Your task to perform on an android device: see sites visited before in the chrome app Image 0: 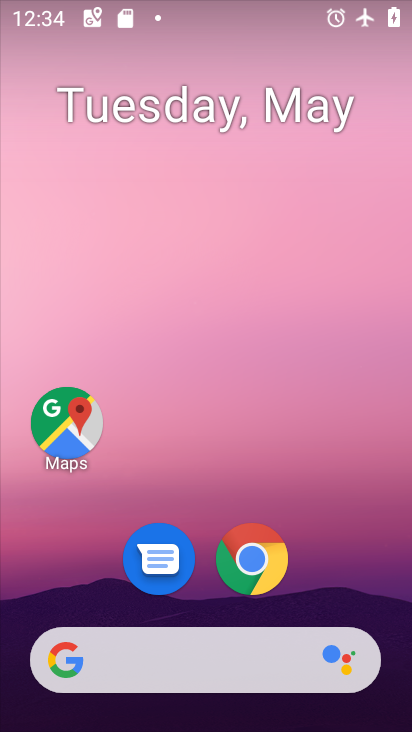
Step 0: drag from (369, 577) to (259, 140)
Your task to perform on an android device: see sites visited before in the chrome app Image 1: 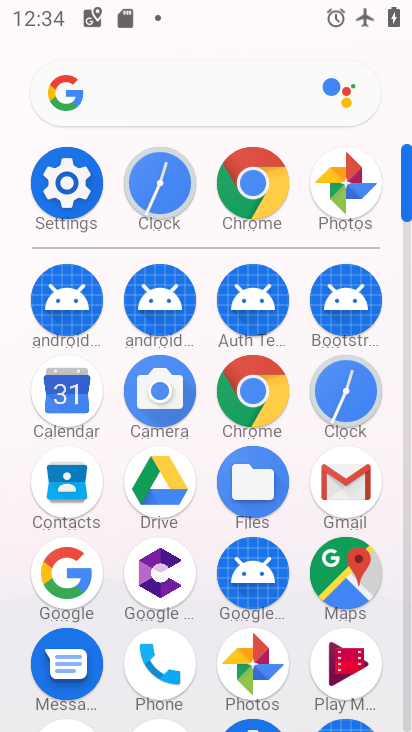
Step 1: click (260, 192)
Your task to perform on an android device: see sites visited before in the chrome app Image 2: 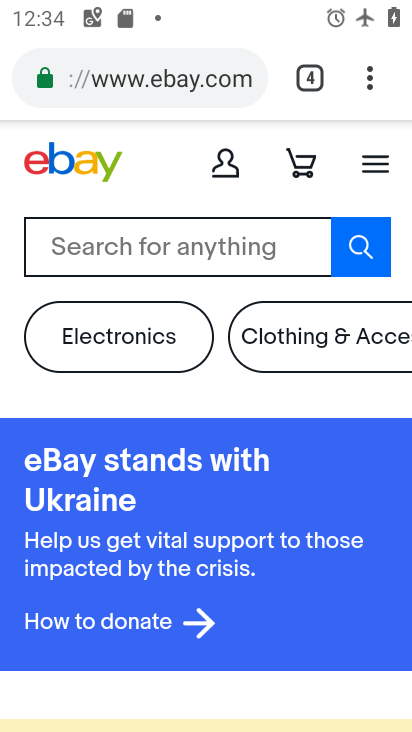
Step 2: click (369, 88)
Your task to perform on an android device: see sites visited before in the chrome app Image 3: 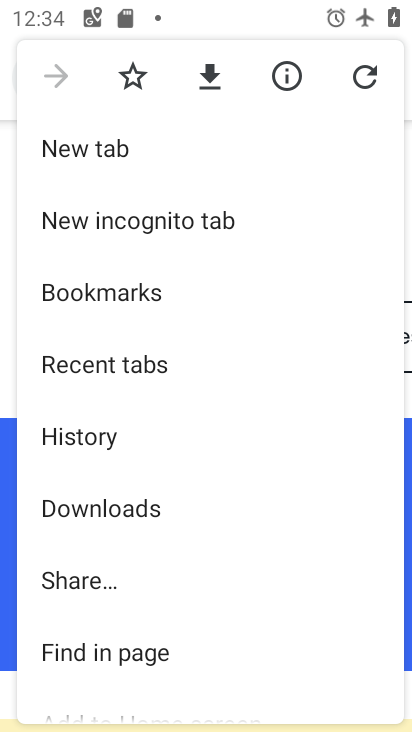
Step 3: click (209, 438)
Your task to perform on an android device: see sites visited before in the chrome app Image 4: 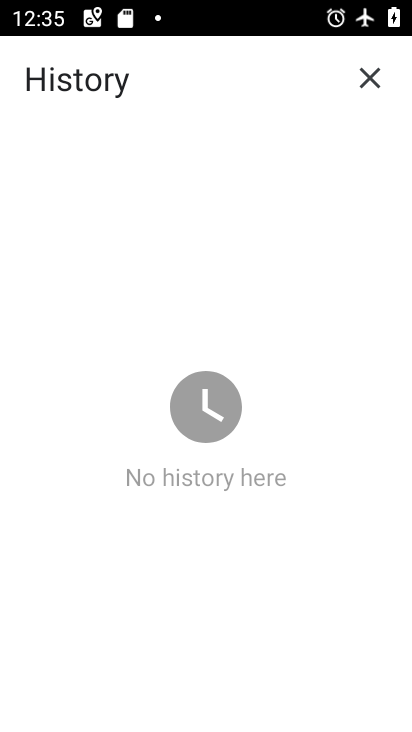
Step 4: task complete